Your task to perform on an android device: Clear the cart on bestbuy. Image 0: 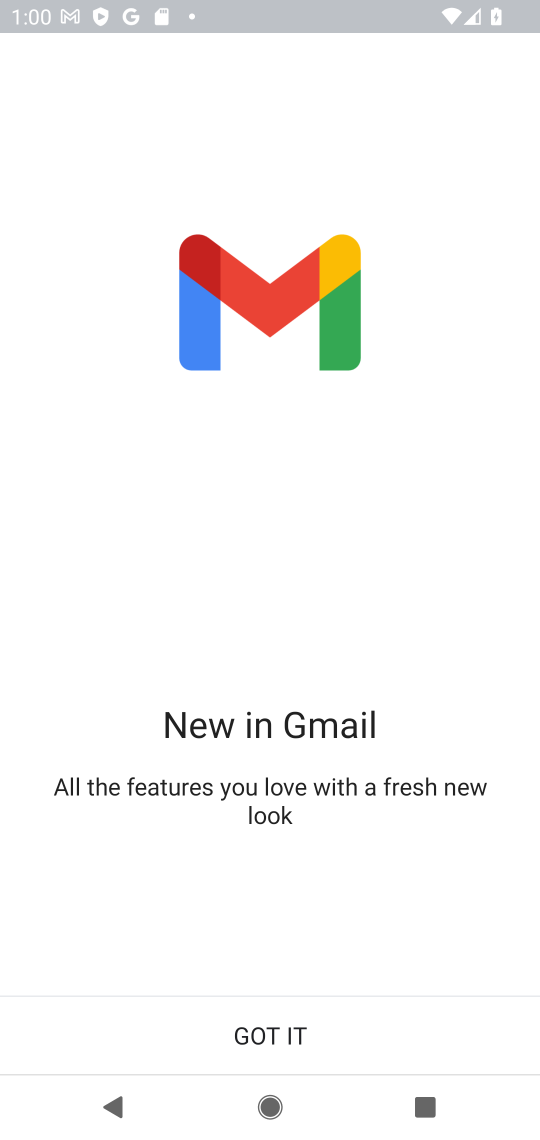
Step 0: press home button
Your task to perform on an android device: Clear the cart on bestbuy. Image 1: 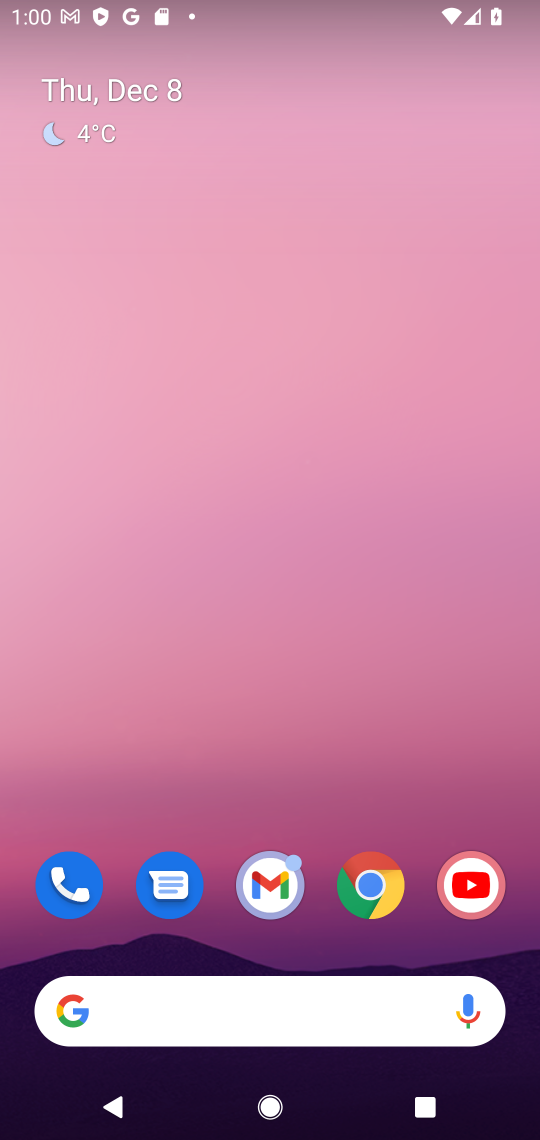
Step 1: click (366, 884)
Your task to perform on an android device: Clear the cart on bestbuy. Image 2: 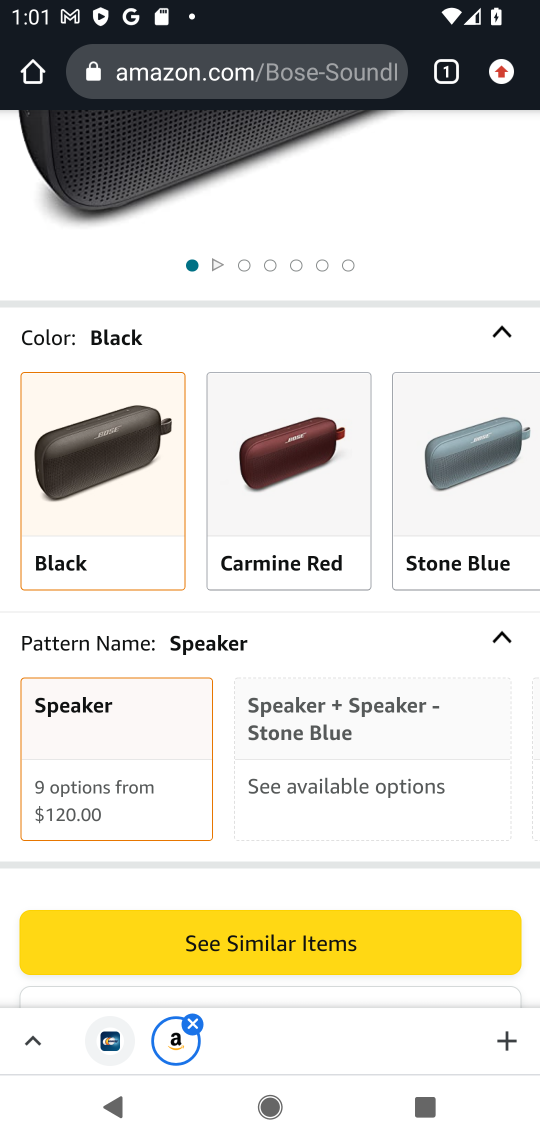
Step 2: click (293, 81)
Your task to perform on an android device: Clear the cart on bestbuy. Image 3: 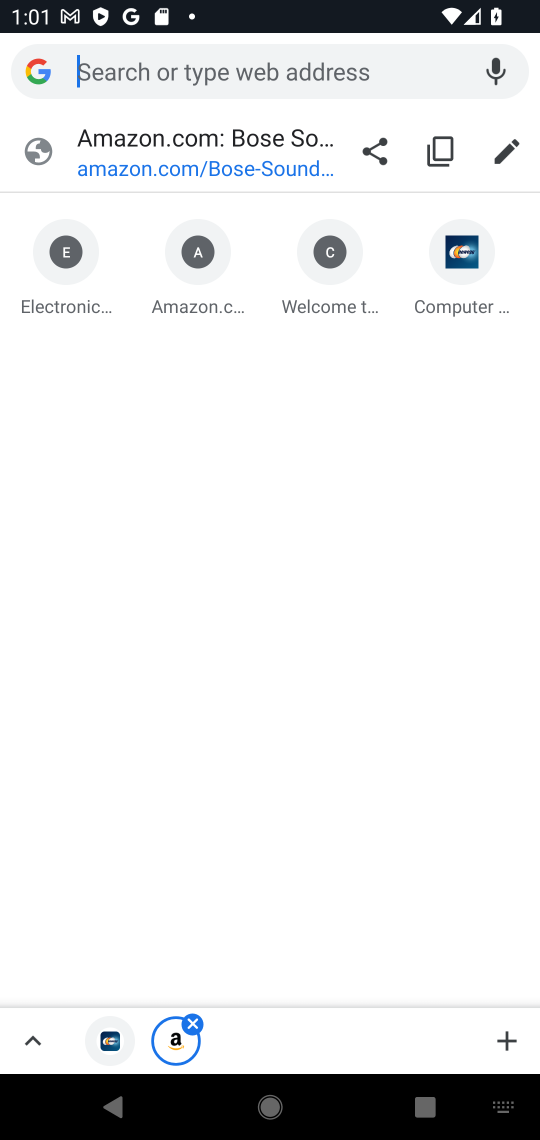
Step 3: type "BESTBUY"
Your task to perform on an android device: Clear the cart on bestbuy. Image 4: 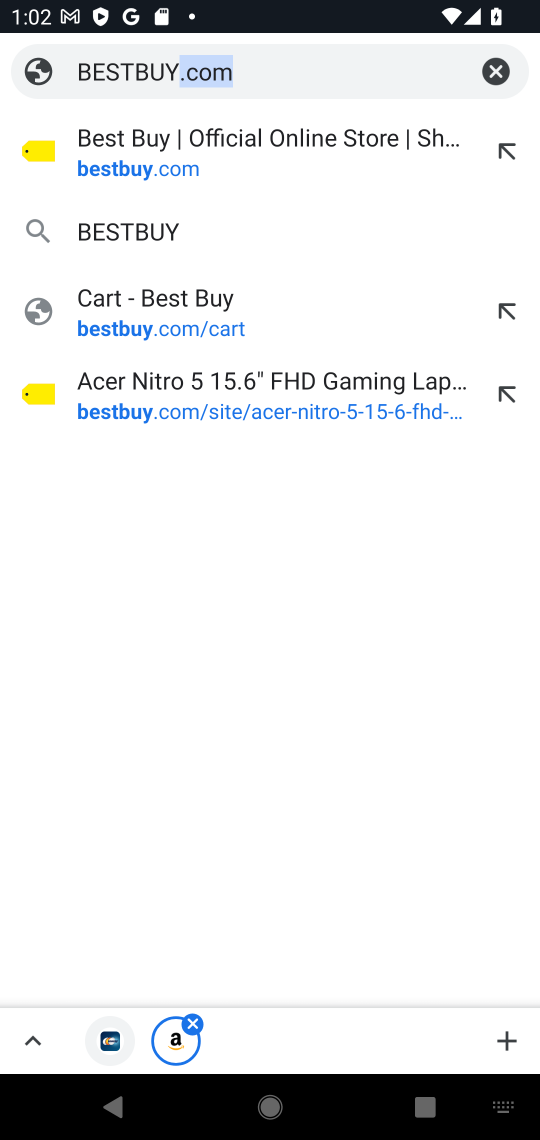
Step 4: click (283, 153)
Your task to perform on an android device: Clear the cart on bestbuy. Image 5: 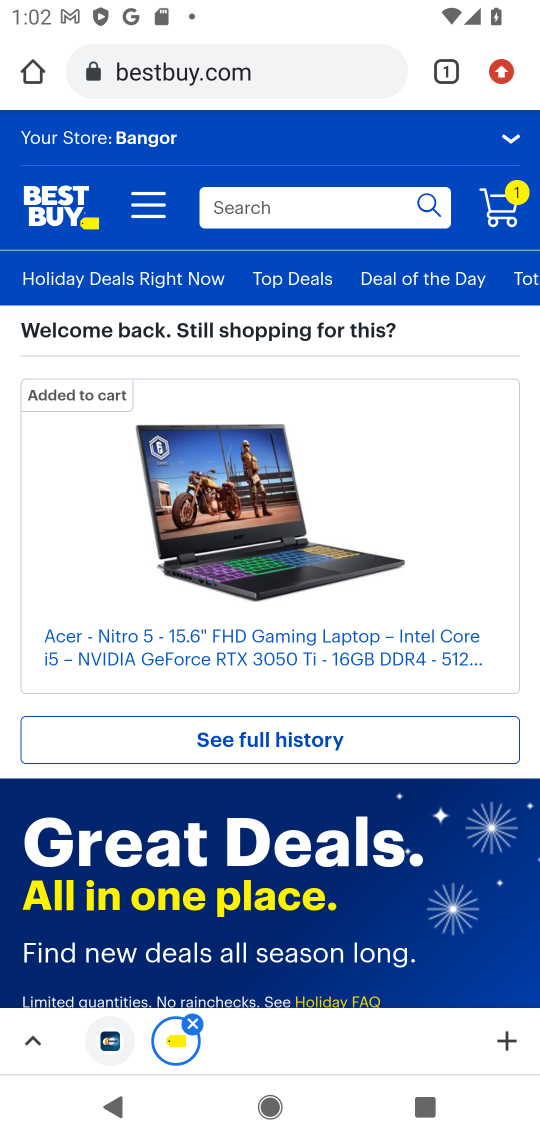
Step 5: click (510, 210)
Your task to perform on an android device: Clear the cart on bestbuy. Image 6: 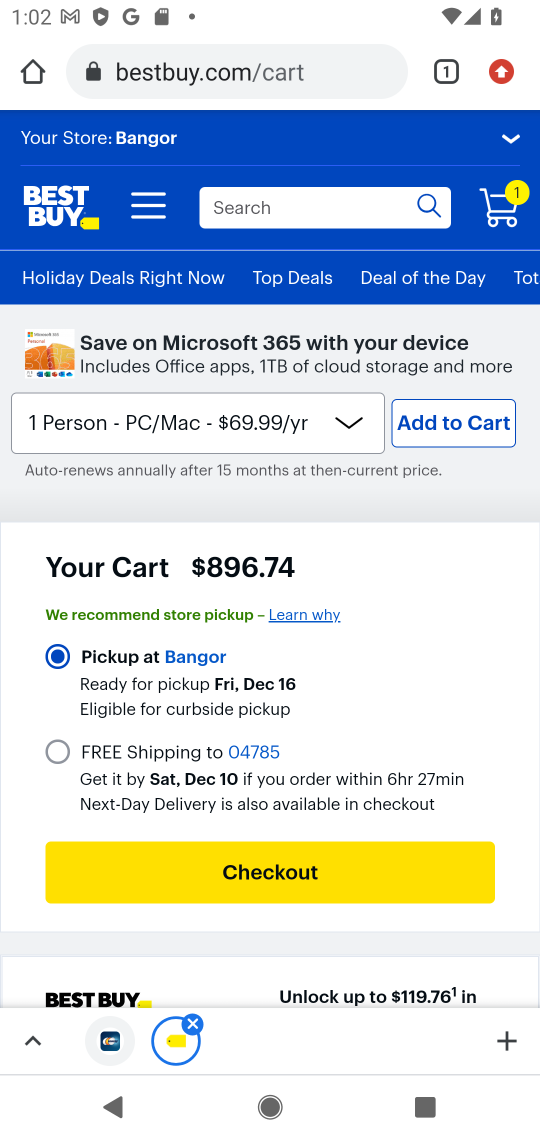
Step 6: drag from (358, 944) to (376, 179)
Your task to perform on an android device: Clear the cart on bestbuy. Image 7: 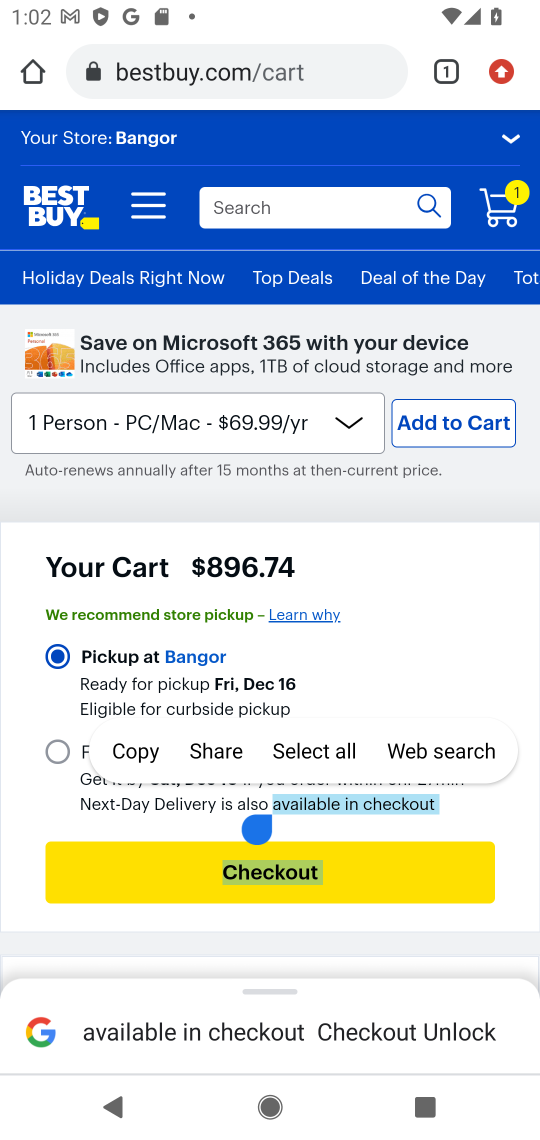
Step 7: drag from (410, 932) to (381, 181)
Your task to perform on an android device: Clear the cart on bestbuy. Image 8: 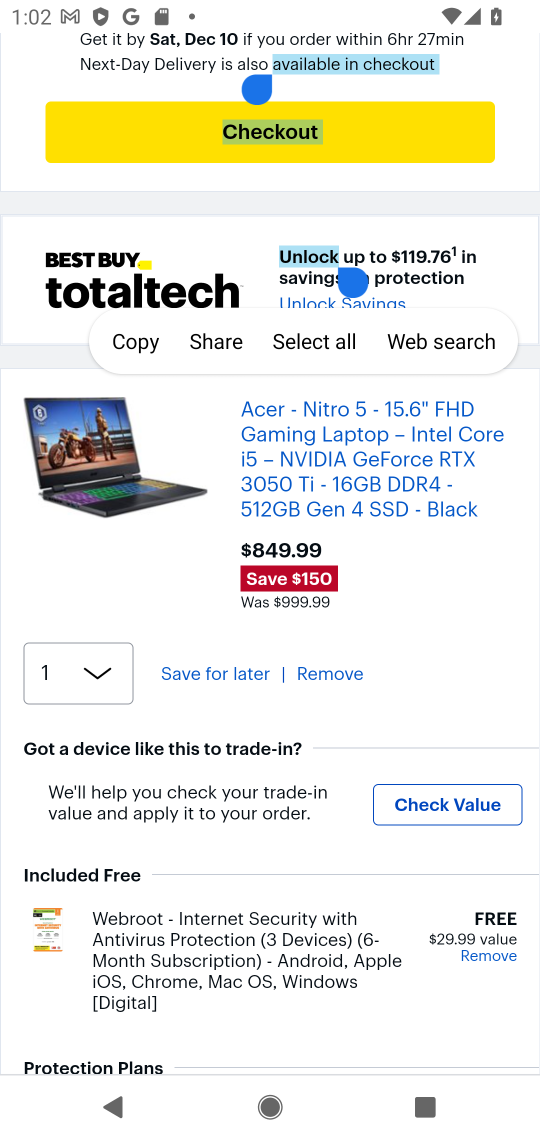
Step 8: click (312, 669)
Your task to perform on an android device: Clear the cart on bestbuy. Image 9: 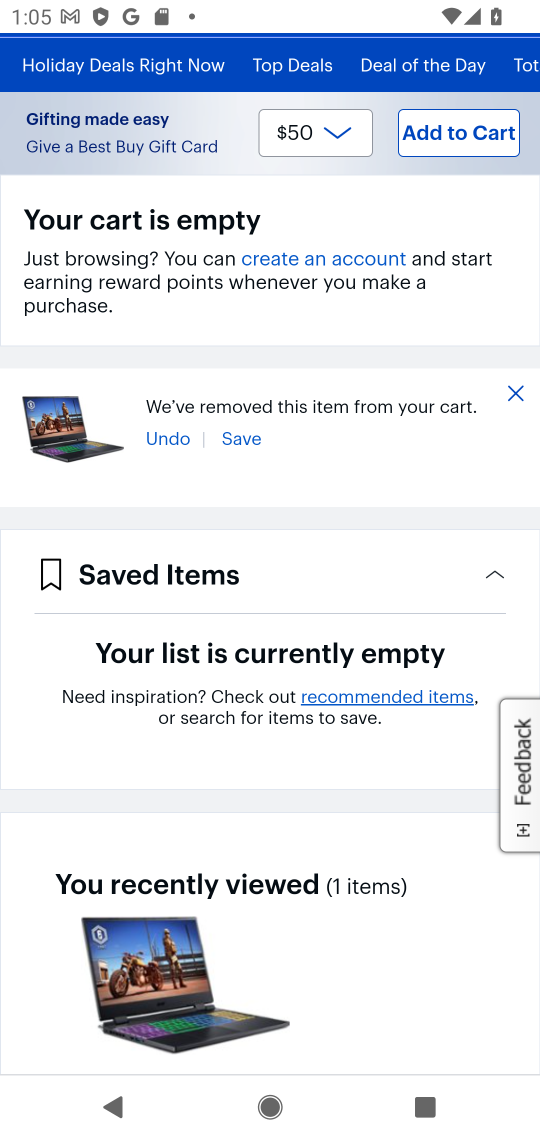
Step 9: task complete